Your task to perform on an android device: Search for logitech g933 on costco.com, select the first entry, add it to the cart, then select checkout. Image 0: 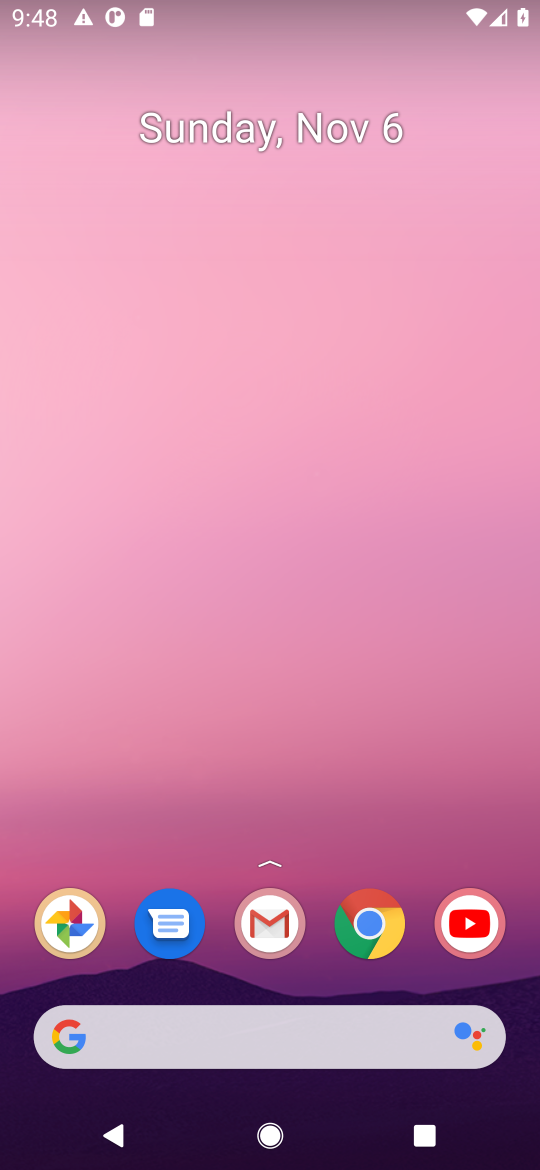
Step 0: click (379, 929)
Your task to perform on an android device: Search for logitech g933 on costco.com, select the first entry, add it to the cart, then select checkout. Image 1: 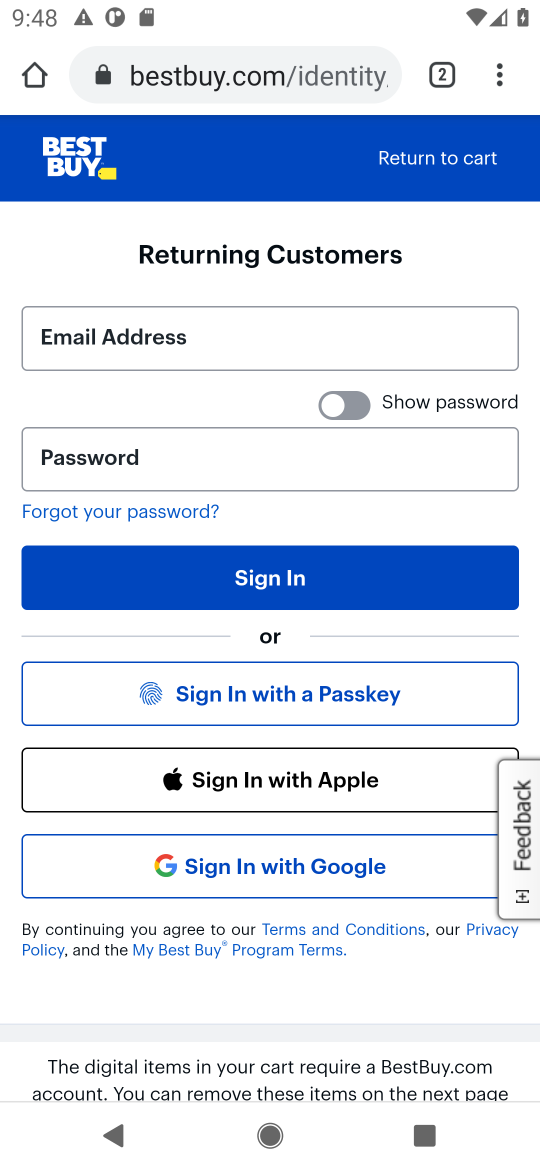
Step 1: click (198, 65)
Your task to perform on an android device: Search for logitech g933 on costco.com, select the first entry, add it to the cart, then select checkout. Image 2: 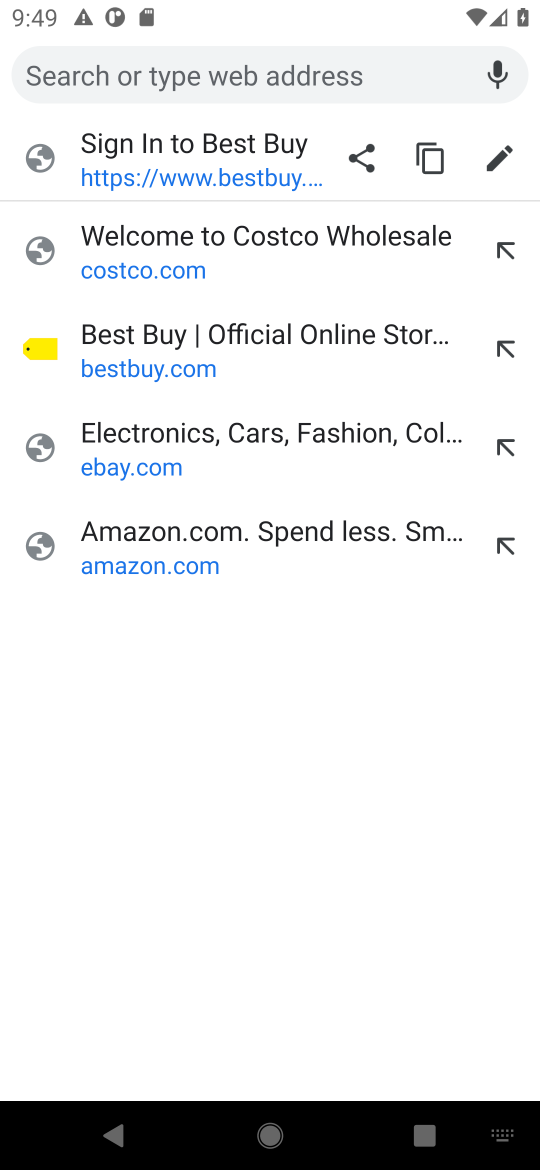
Step 2: click (137, 276)
Your task to perform on an android device: Search for logitech g933 on costco.com, select the first entry, add it to the cart, then select checkout. Image 3: 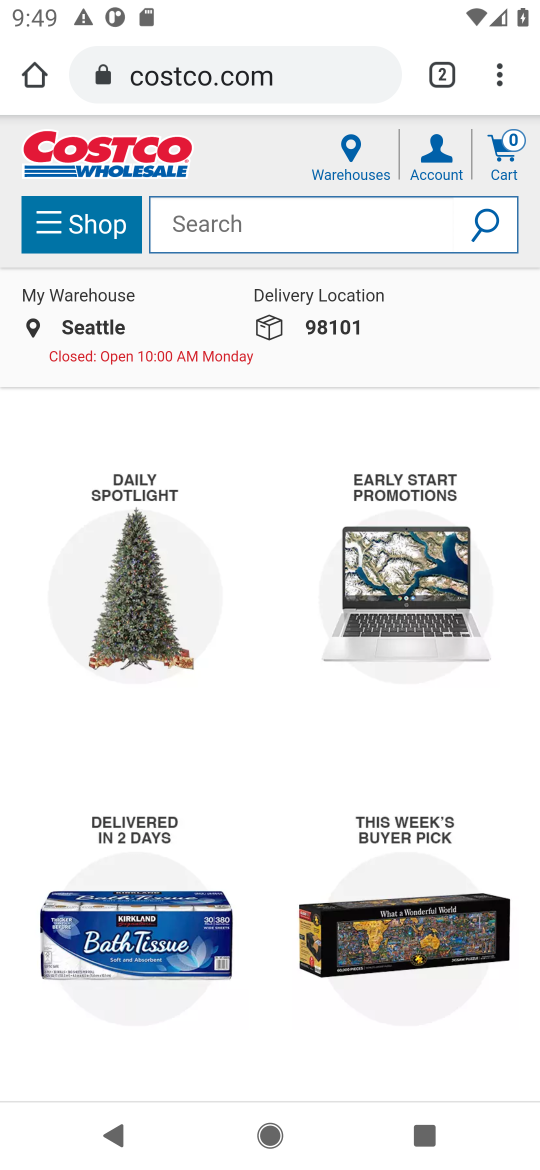
Step 3: click (244, 216)
Your task to perform on an android device: Search for logitech g933 on costco.com, select the first entry, add it to the cart, then select checkout. Image 4: 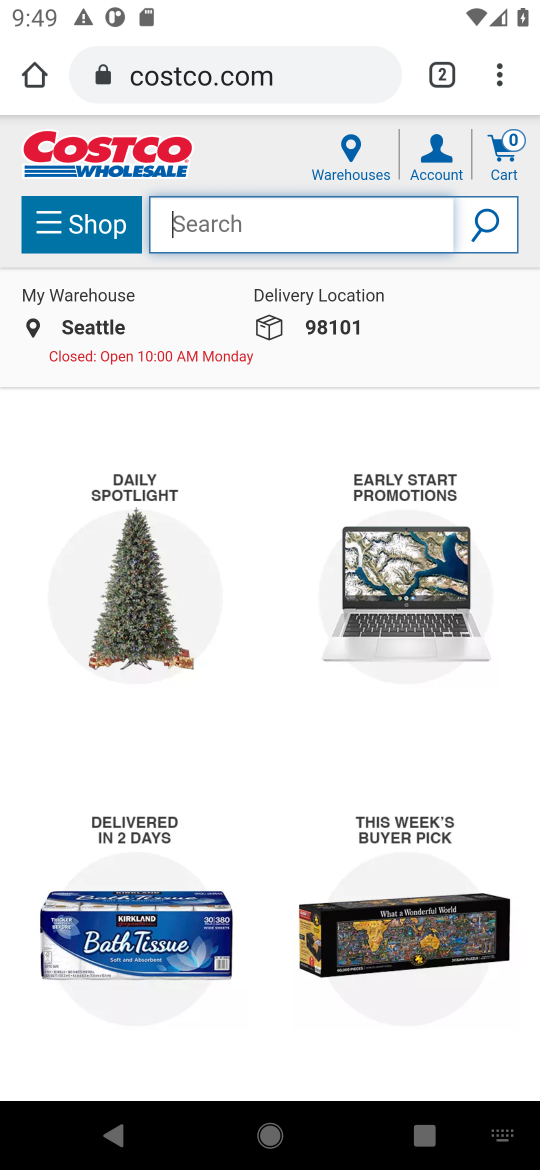
Step 4: type "logitech g933"
Your task to perform on an android device: Search for logitech g933 on costco.com, select the first entry, add it to the cart, then select checkout. Image 5: 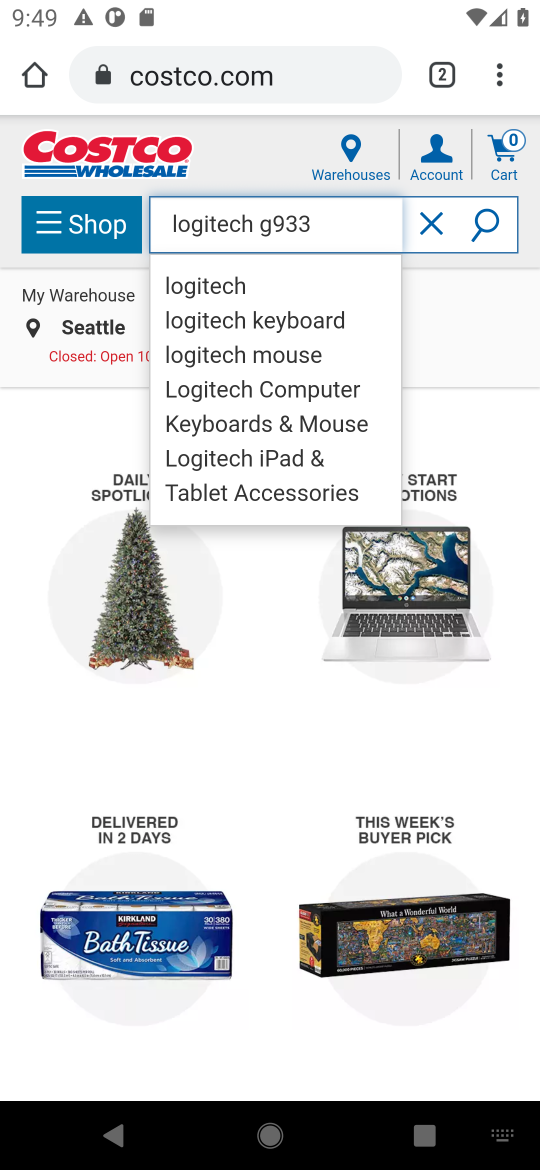
Step 5: click (480, 218)
Your task to perform on an android device: Search for logitech g933 on costco.com, select the first entry, add it to the cart, then select checkout. Image 6: 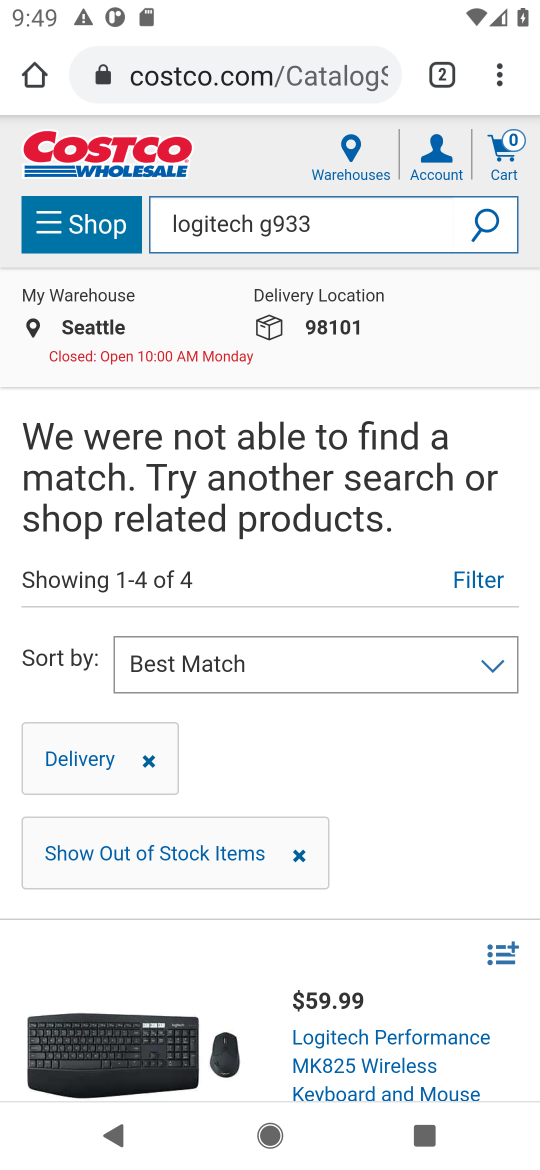
Step 6: task complete